Your task to perform on an android device: Open ESPN.com Image 0: 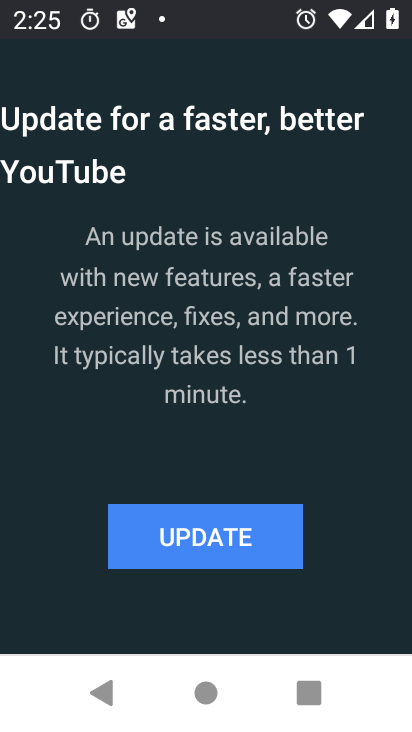
Step 0: press home button
Your task to perform on an android device: Open ESPN.com Image 1: 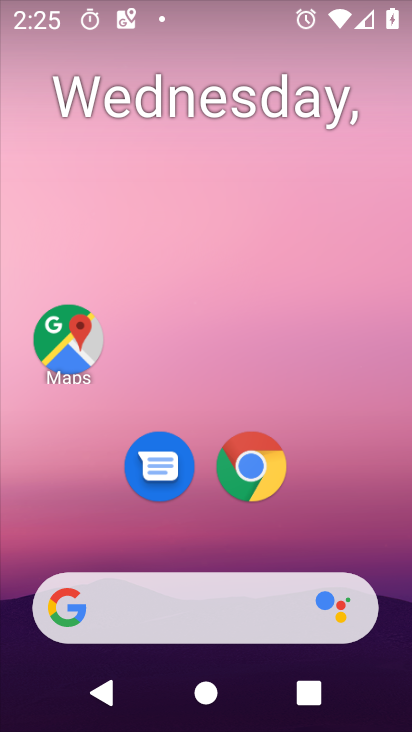
Step 1: click (239, 470)
Your task to perform on an android device: Open ESPN.com Image 2: 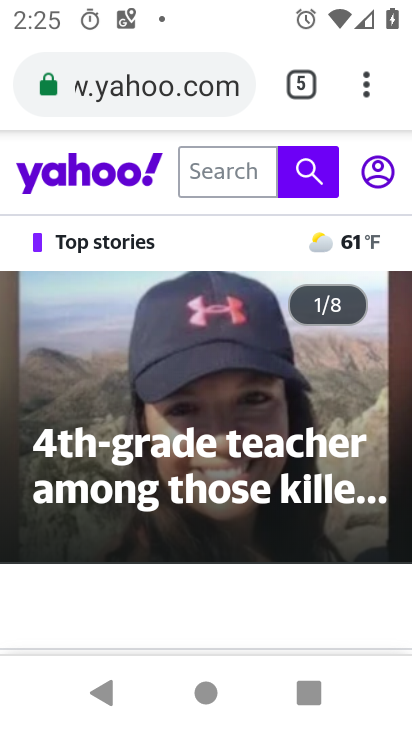
Step 2: click (296, 86)
Your task to perform on an android device: Open ESPN.com Image 3: 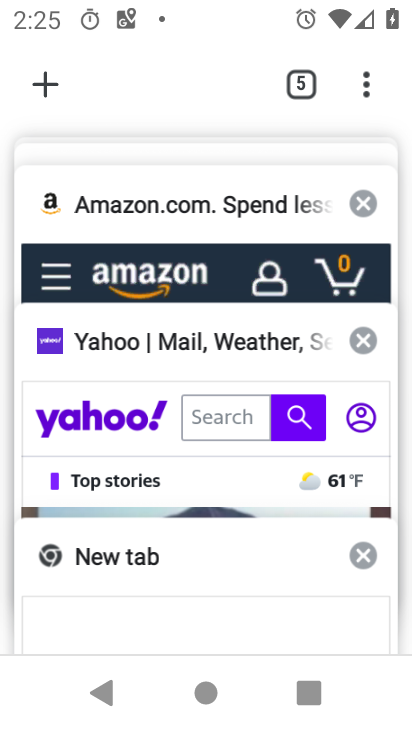
Step 3: drag from (256, 211) to (263, 549)
Your task to perform on an android device: Open ESPN.com Image 4: 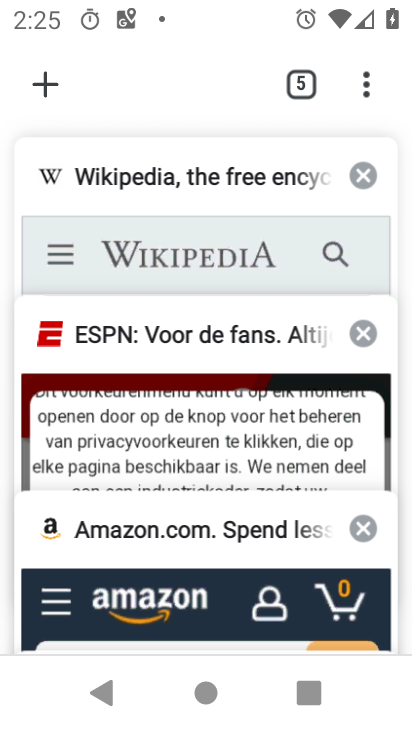
Step 4: click (188, 385)
Your task to perform on an android device: Open ESPN.com Image 5: 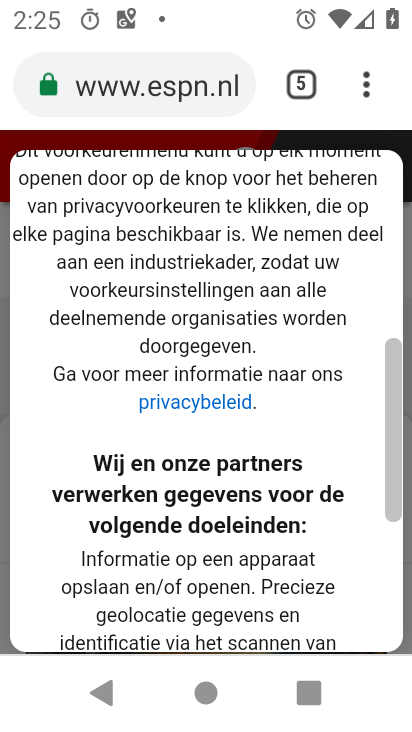
Step 5: task complete